Your task to perform on an android device: Show me productivity apps on the Play Store Image 0: 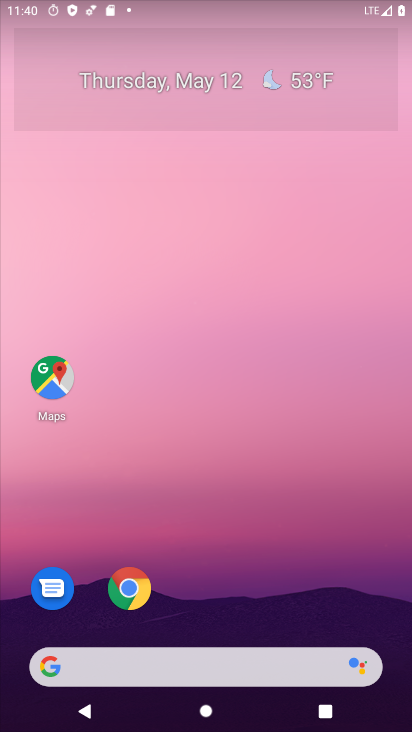
Step 0: drag from (291, 570) to (293, 49)
Your task to perform on an android device: Show me productivity apps on the Play Store Image 1: 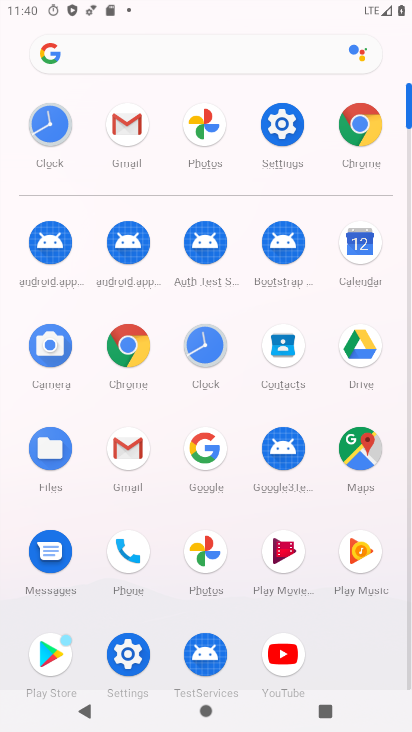
Step 1: click (46, 646)
Your task to perform on an android device: Show me productivity apps on the Play Store Image 2: 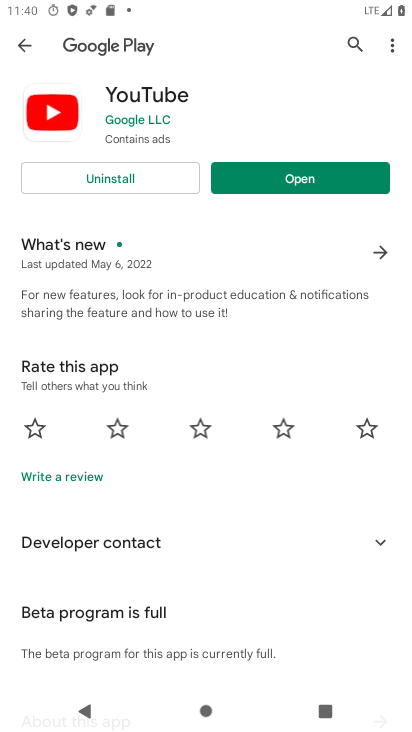
Step 2: click (25, 42)
Your task to perform on an android device: Show me productivity apps on the Play Store Image 3: 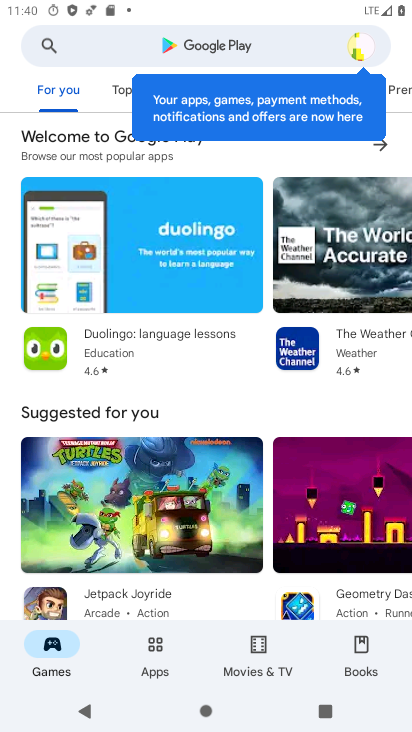
Step 3: click (149, 649)
Your task to perform on an android device: Show me productivity apps on the Play Store Image 4: 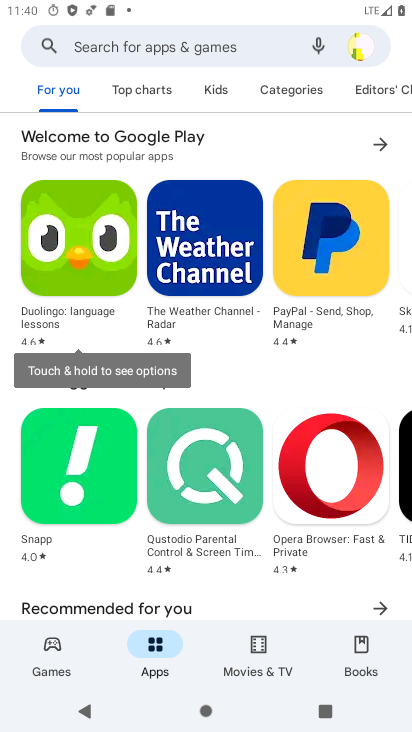
Step 4: task complete